Your task to perform on an android device: turn off data saver in the chrome app Image 0: 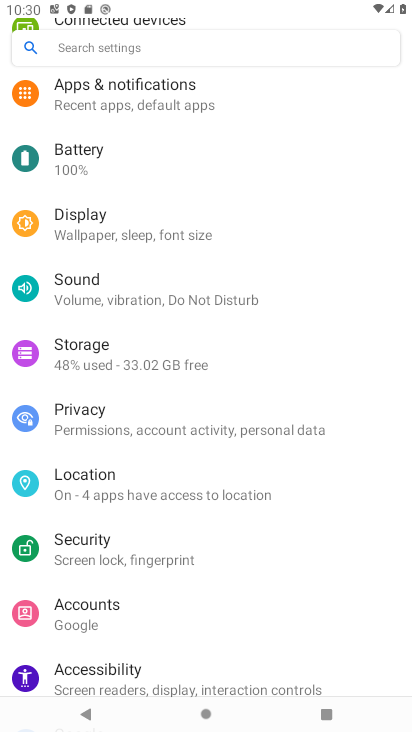
Step 0: press home button
Your task to perform on an android device: turn off data saver in the chrome app Image 1: 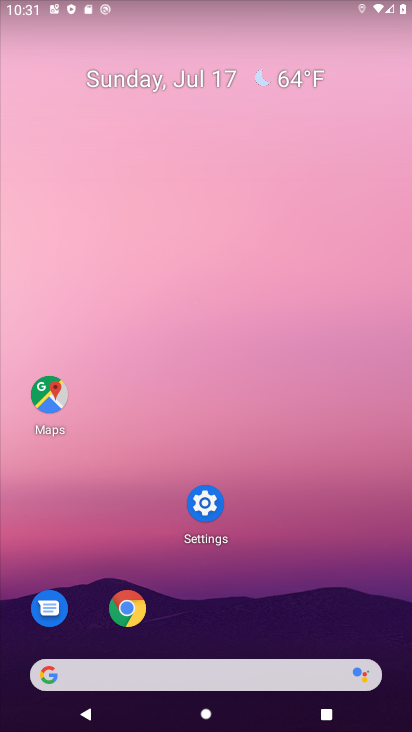
Step 1: click (130, 605)
Your task to perform on an android device: turn off data saver in the chrome app Image 2: 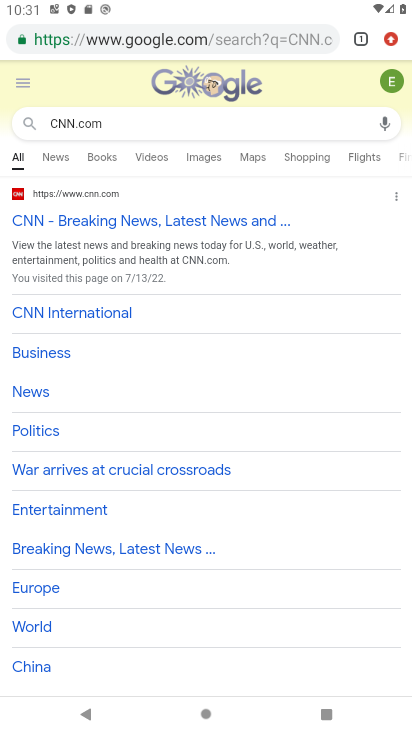
Step 2: click (388, 40)
Your task to perform on an android device: turn off data saver in the chrome app Image 3: 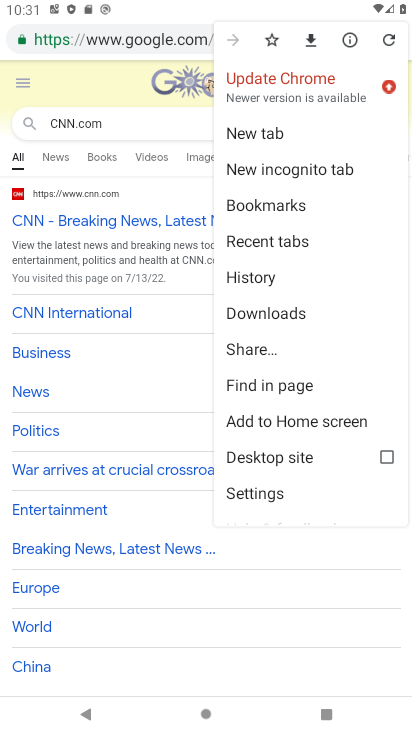
Step 3: click (233, 485)
Your task to perform on an android device: turn off data saver in the chrome app Image 4: 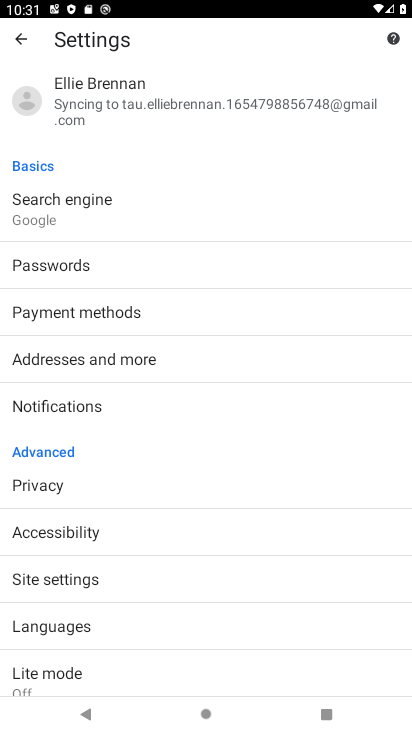
Step 4: click (53, 670)
Your task to perform on an android device: turn off data saver in the chrome app Image 5: 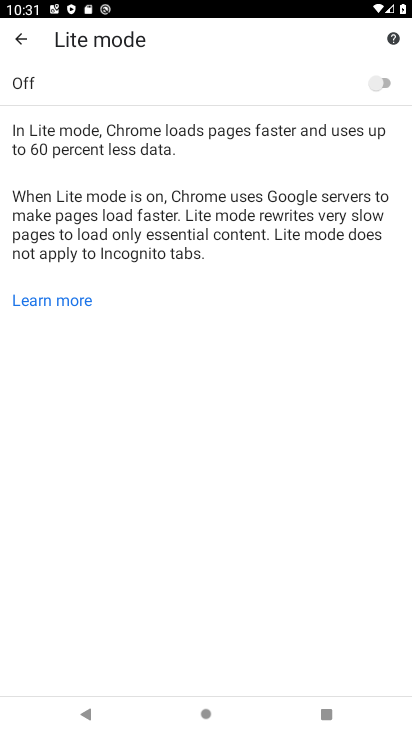
Step 5: task complete